Your task to perform on an android device: What is the recent news? Image 0: 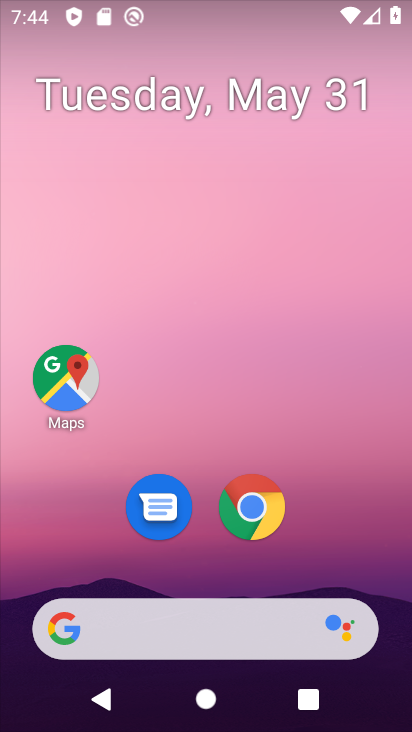
Step 0: click (258, 513)
Your task to perform on an android device: What is the recent news? Image 1: 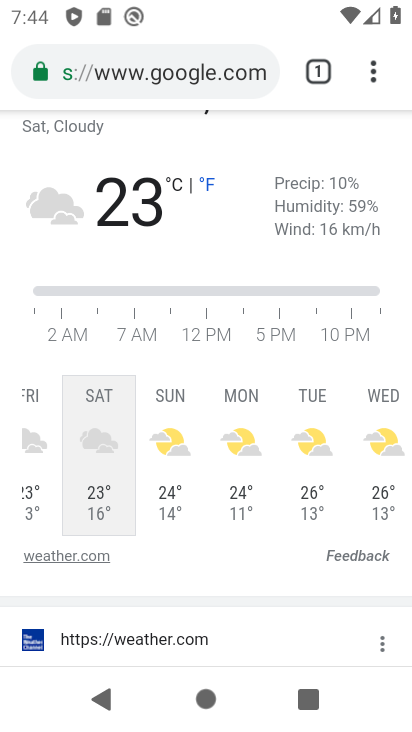
Step 1: click (228, 77)
Your task to perform on an android device: What is the recent news? Image 2: 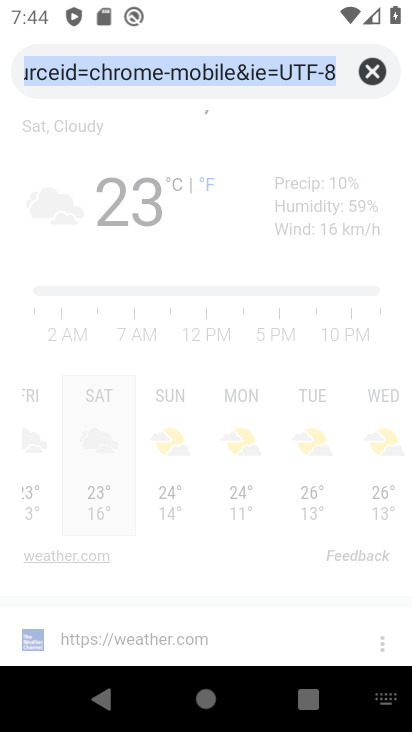
Step 2: type "news"
Your task to perform on an android device: What is the recent news? Image 3: 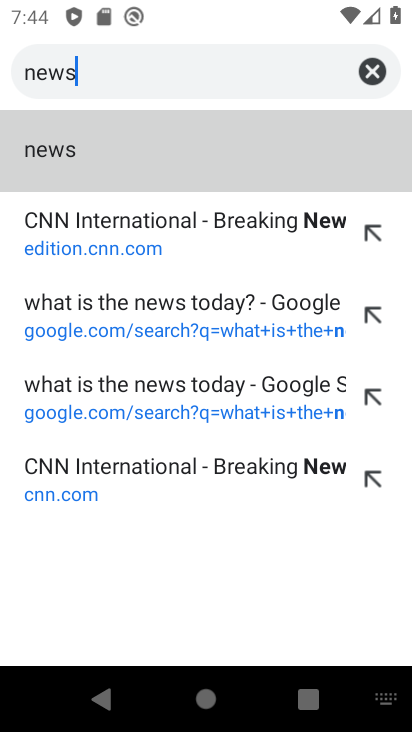
Step 3: type ""
Your task to perform on an android device: What is the recent news? Image 4: 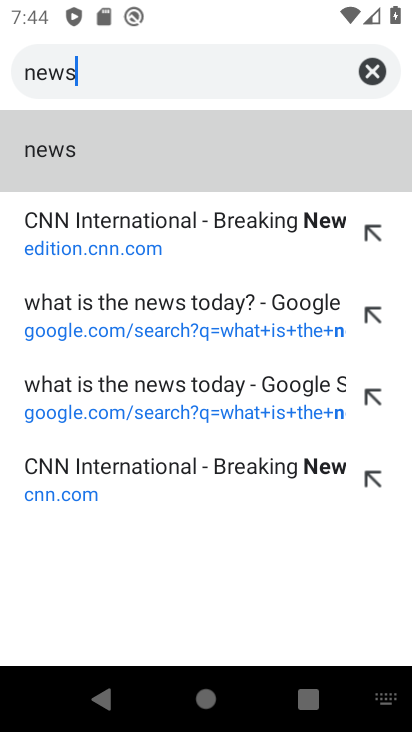
Step 4: click (49, 146)
Your task to perform on an android device: What is the recent news? Image 5: 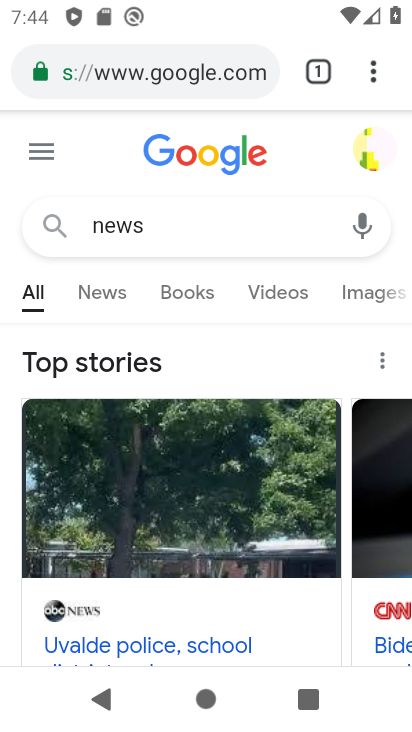
Step 5: click (115, 288)
Your task to perform on an android device: What is the recent news? Image 6: 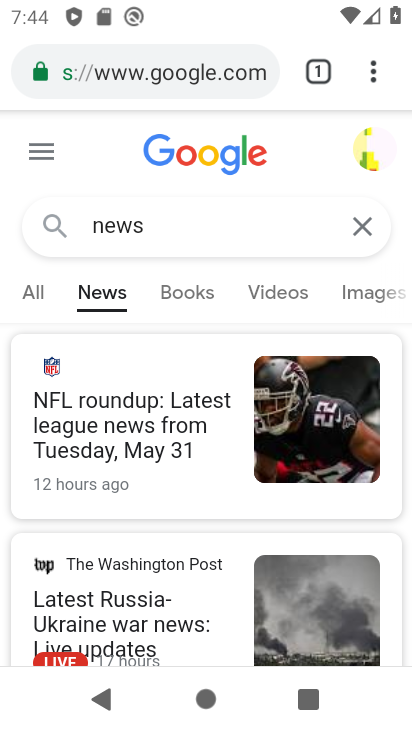
Step 6: task complete